Your task to perform on an android device: open a new tab in the chrome app Image 0: 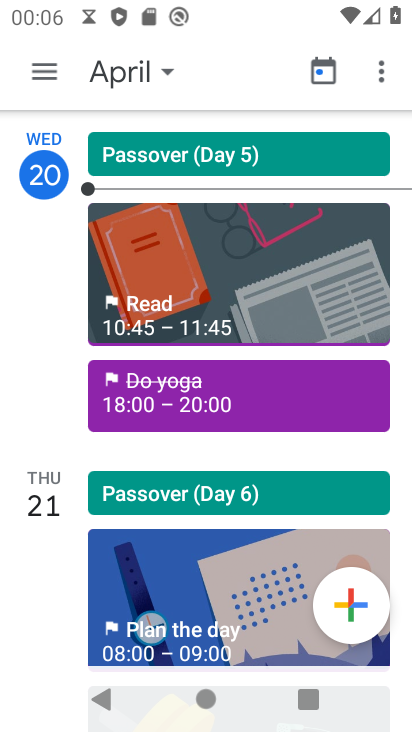
Step 0: press home button
Your task to perform on an android device: open a new tab in the chrome app Image 1: 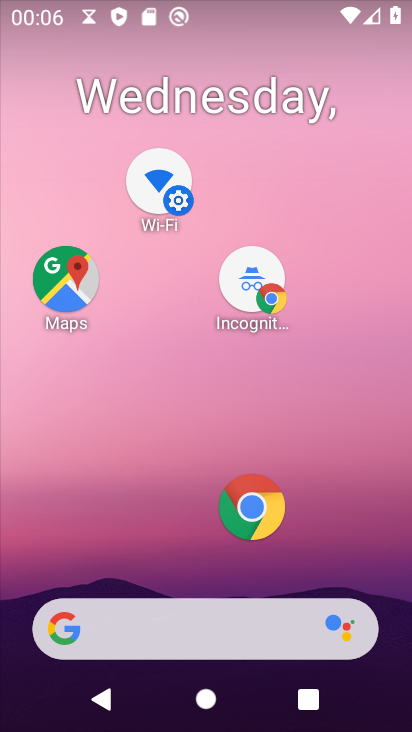
Step 1: click (260, 501)
Your task to perform on an android device: open a new tab in the chrome app Image 2: 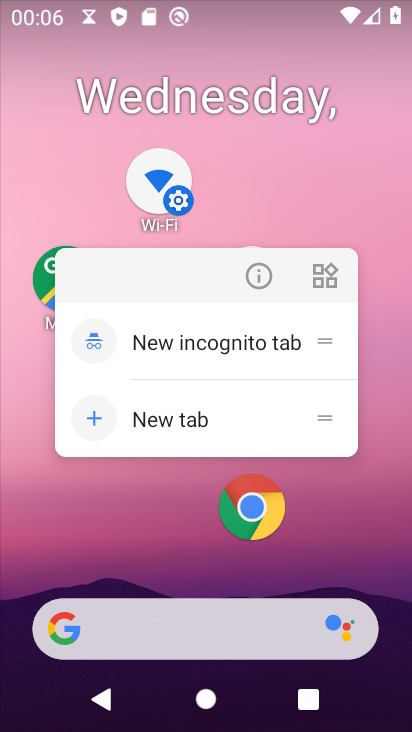
Step 2: click (227, 506)
Your task to perform on an android device: open a new tab in the chrome app Image 3: 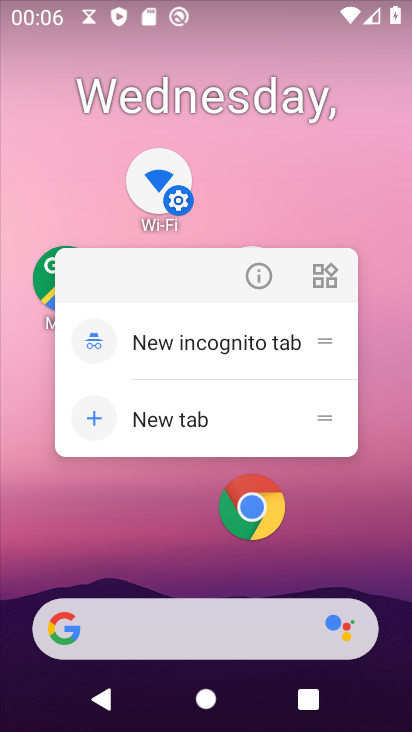
Step 3: click (256, 499)
Your task to perform on an android device: open a new tab in the chrome app Image 4: 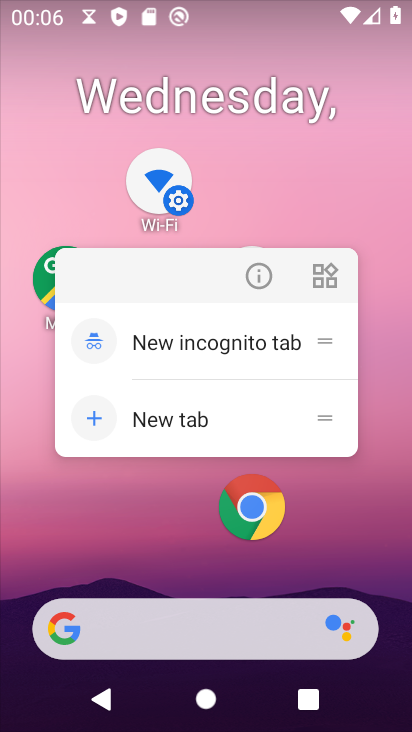
Step 4: click (256, 499)
Your task to perform on an android device: open a new tab in the chrome app Image 5: 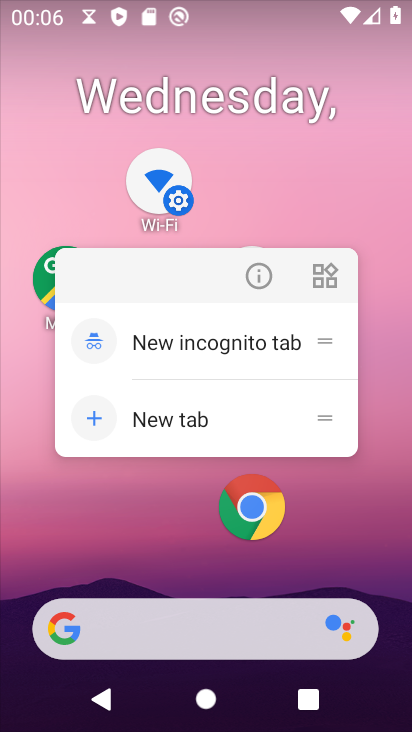
Step 5: click (254, 503)
Your task to perform on an android device: open a new tab in the chrome app Image 6: 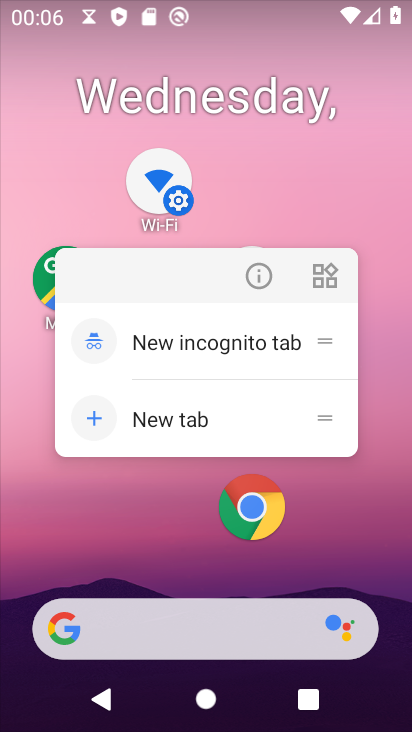
Step 6: click (254, 503)
Your task to perform on an android device: open a new tab in the chrome app Image 7: 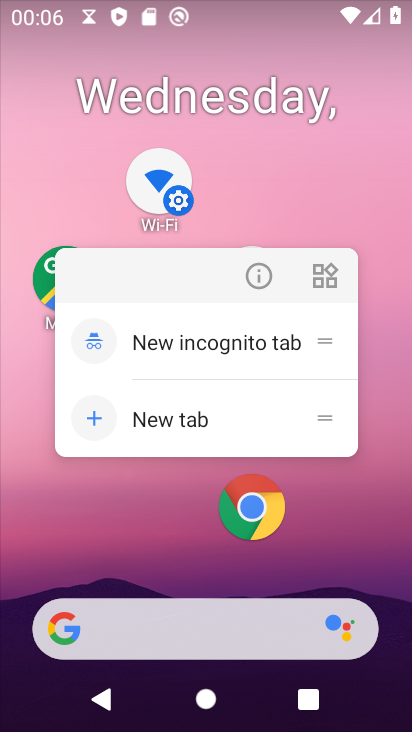
Step 7: click (254, 503)
Your task to perform on an android device: open a new tab in the chrome app Image 8: 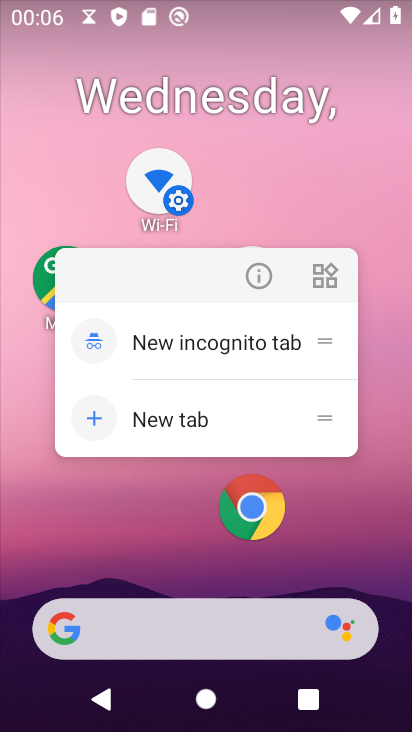
Step 8: click (254, 503)
Your task to perform on an android device: open a new tab in the chrome app Image 9: 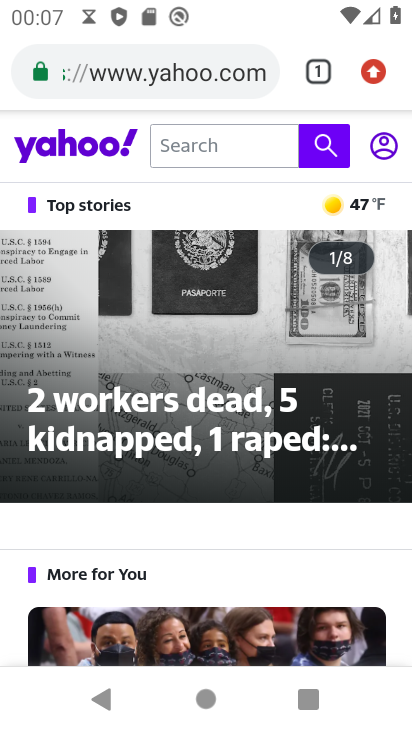
Step 9: click (315, 62)
Your task to perform on an android device: open a new tab in the chrome app Image 10: 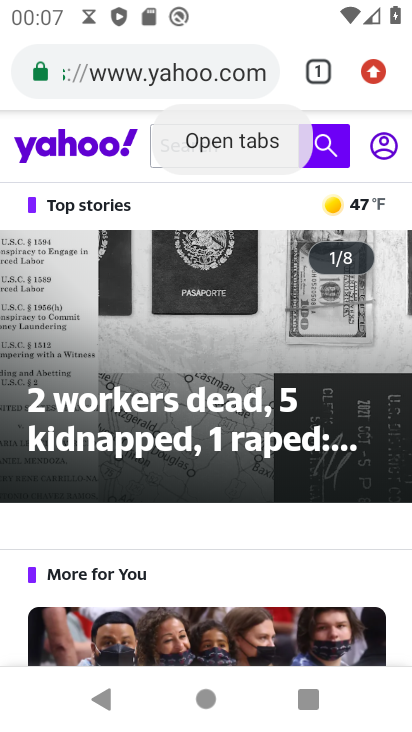
Step 10: click (310, 76)
Your task to perform on an android device: open a new tab in the chrome app Image 11: 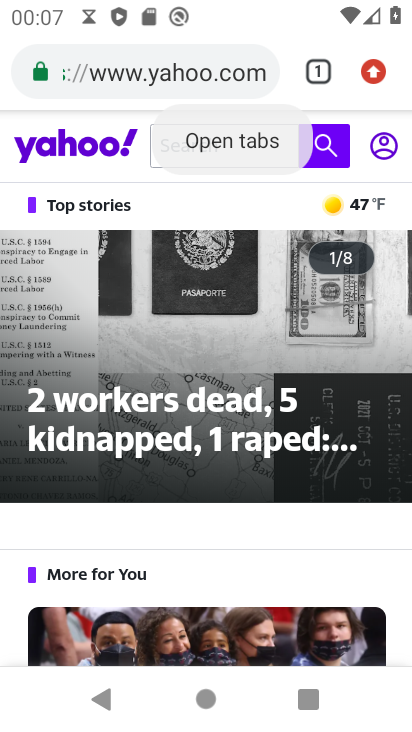
Step 11: click (320, 70)
Your task to perform on an android device: open a new tab in the chrome app Image 12: 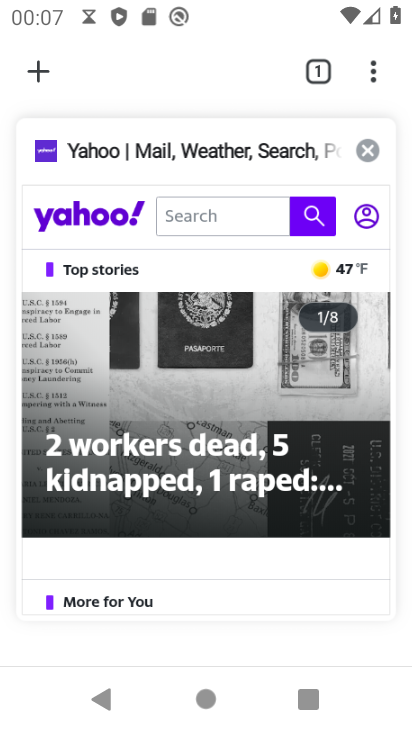
Step 12: click (39, 69)
Your task to perform on an android device: open a new tab in the chrome app Image 13: 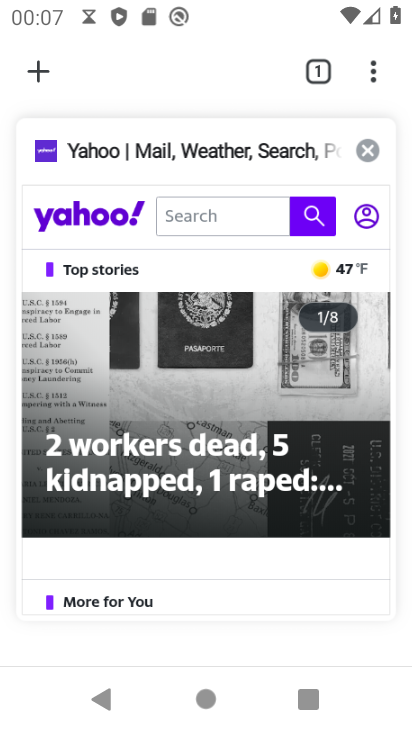
Step 13: click (39, 69)
Your task to perform on an android device: open a new tab in the chrome app Image 14: 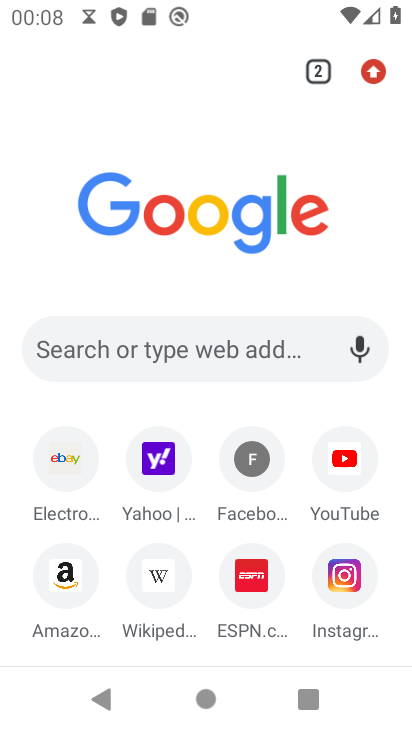
Step 14: task complete